Your task to perform on an android device: Show me popular games on the Play Store Image 0: 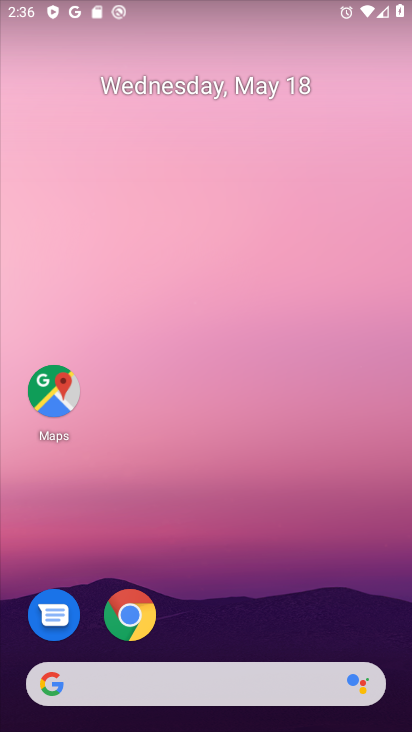
Step 0: drag from (196, 642) to (267, 195)
Your task to perform on an android device: Show me popular games on the Play Store Image 1: 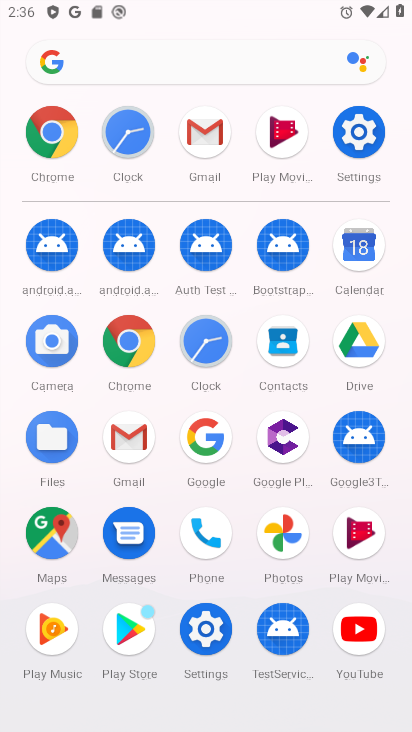
Step 1: click (131, 629)
Your task to perform on an android device: Show me popular games on the Play Store Image 2: 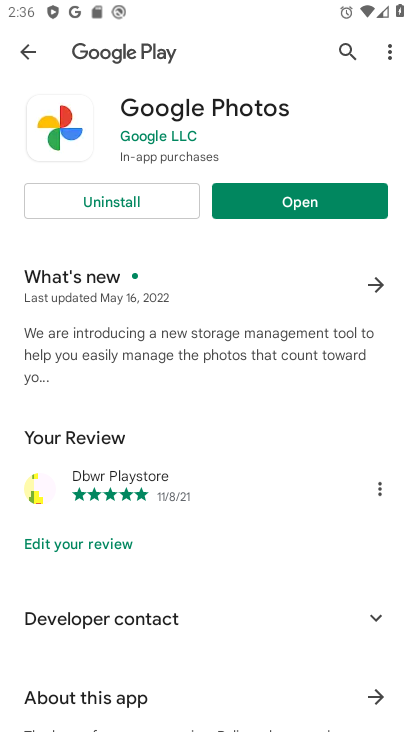
Step 2: click (33, 56)
Your task to perform on an android device: Show me popular games on the Play Store Image 3: 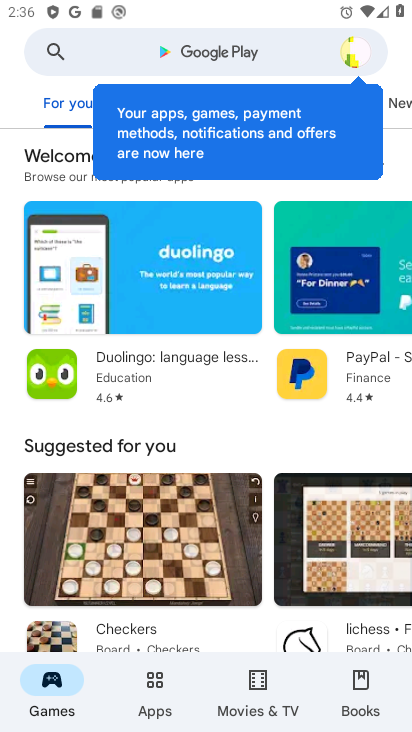
Step 3: click (128, 49)
Your task to perform on an android device: Show me popular games on the Play Store Image 4: 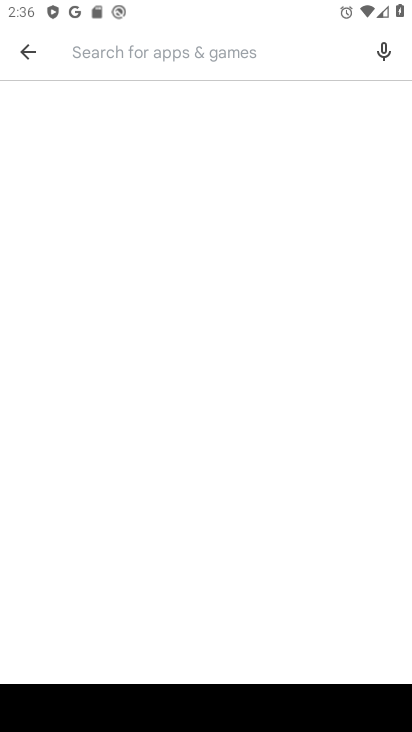
Step 4: type "popular games"
Your task to perform on an android device: Show me popular games on the Play Store Image 5: 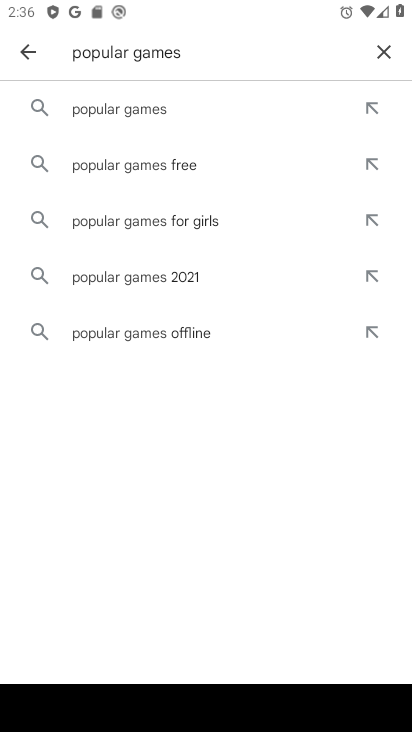
Step 5: click (88, 102)
Your task to perform on an android device: Show me popular games on the Play Store Image 6: 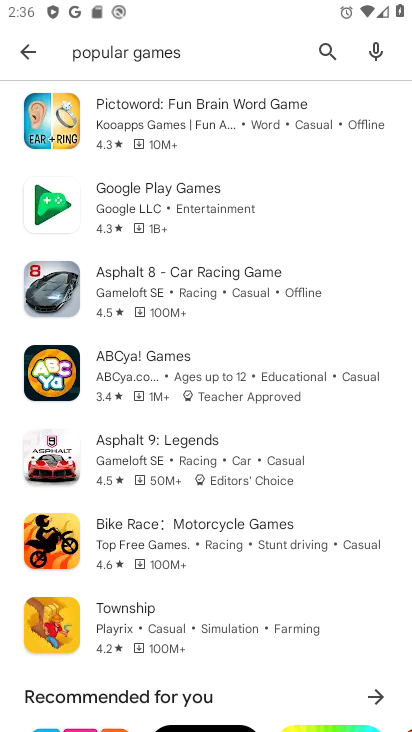
Step 6: task complete